Your task to perform on an android device: Open CNN.com Image 0: 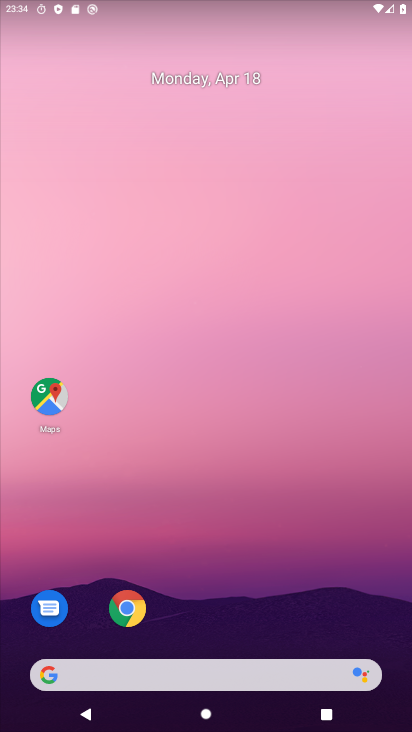
Step 0: drag from (234, 598) to (223, 73)
Your task to perform on an android device: Open CNN.com Image 1: 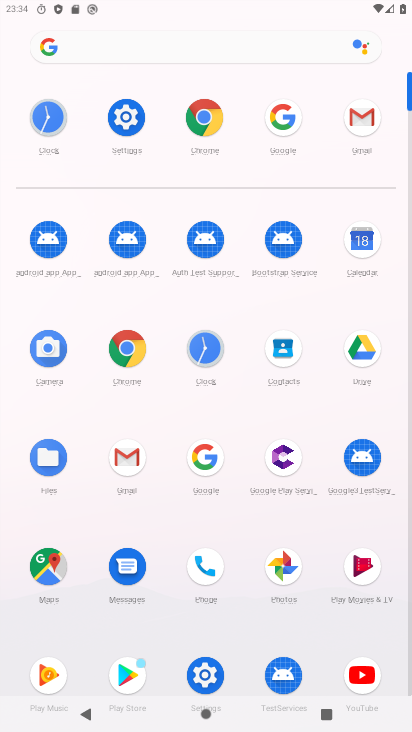
Step 1: click (196, 461)
Your task to perform on an android device: Open CNN.com Image 2: 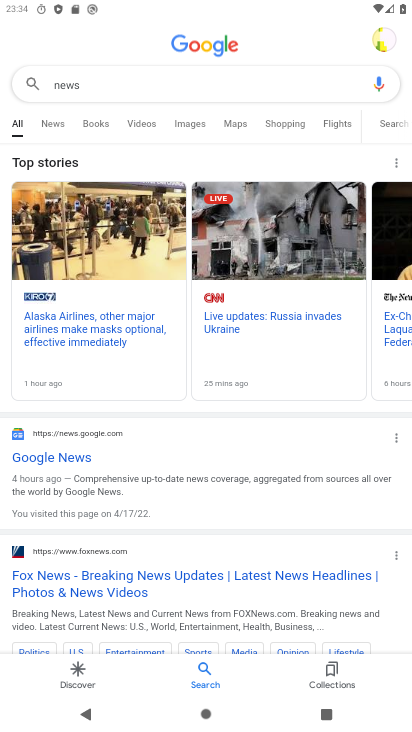
Step 2: click (223, 77)
Your task to perform on an android device: Open CNN.com Image 3: 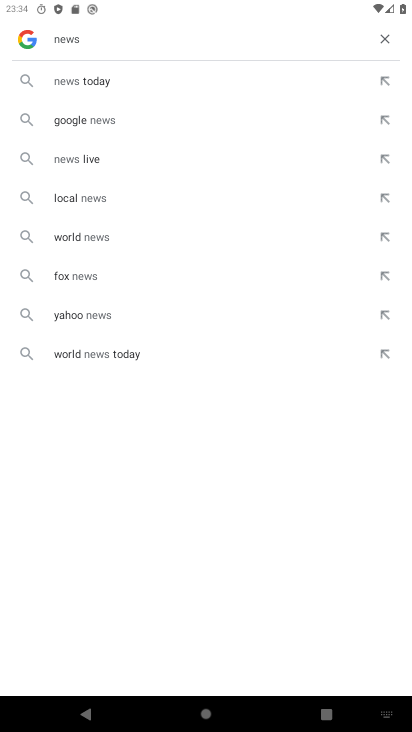
Step 3: click (386, 35)
Your task to perform on an android device: Open CNN.com Image 4: 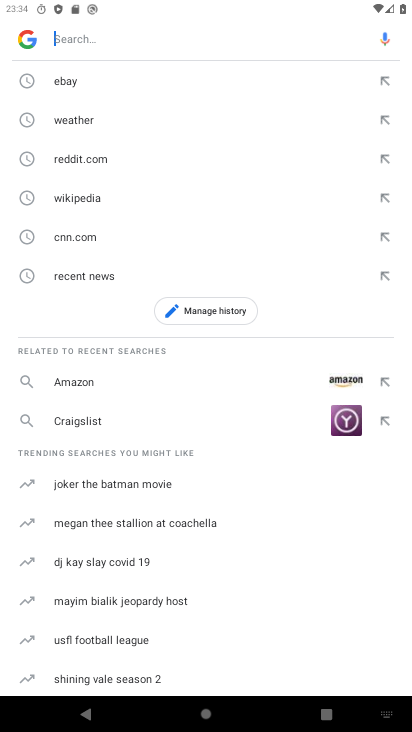
Step 4: click (92, 244)
Your task to perform on an android device: Open CNN.com Image 5: 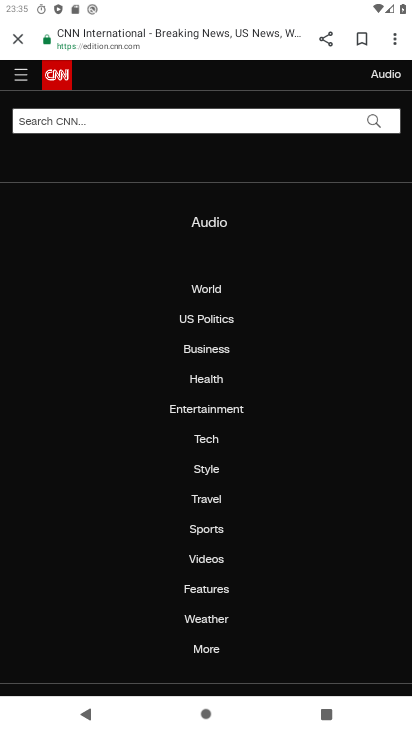
Step 5: task complete